Your task to perform on an android device: turn on showing notifications on the lock screen Image 0: 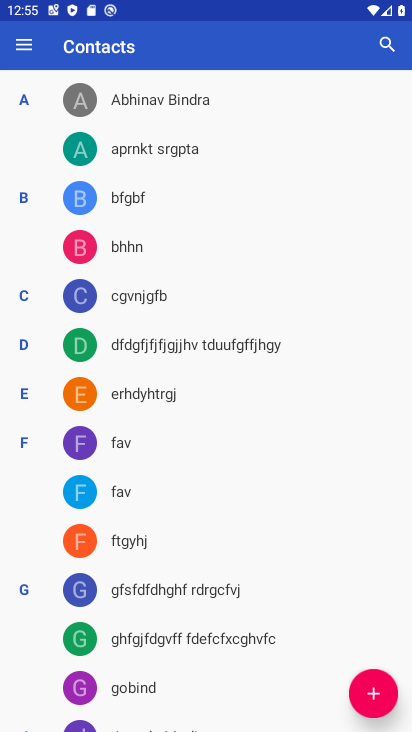
Step 0: press home button
Your task to perform on an android device: turn on showing notifications on the lock screen Image 1: 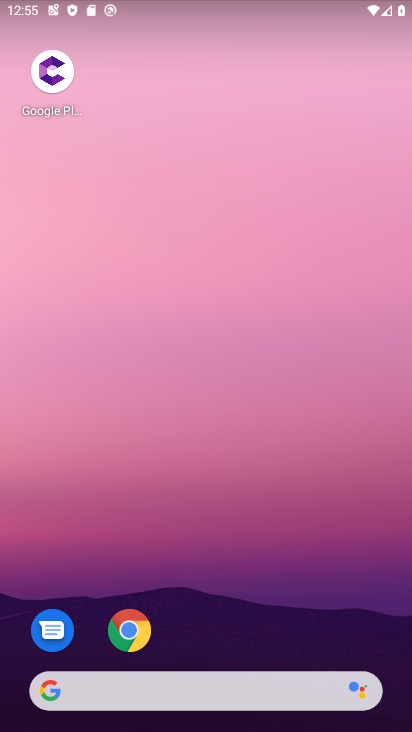
Step 1: drag from (148, 676) to (193, 398)
Your task to perform on an android device: turn on showing notifications on the lock screen Image 2: 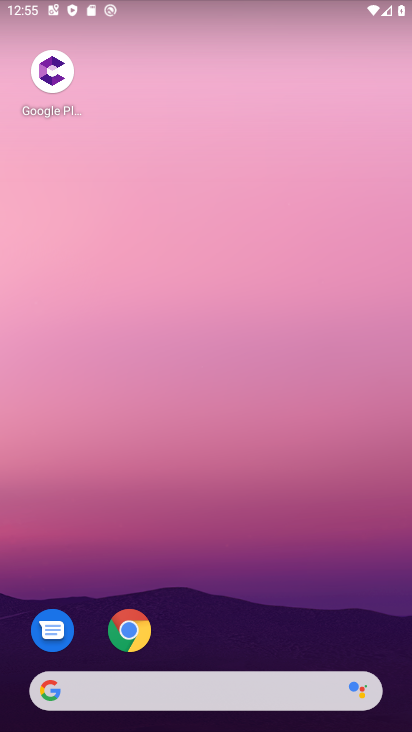
Step 2: drag from (150, 663) to (208, 177)
Your task to perform on an android device: turn on showing notifications on the lock screen Image 3: 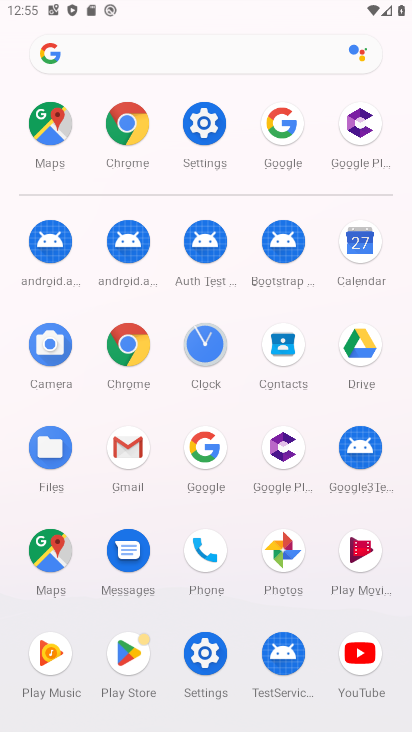
Step 3: click (208, 139)
Your task to perform on an android device: turn on showing notifications on the lock screen Image 4: 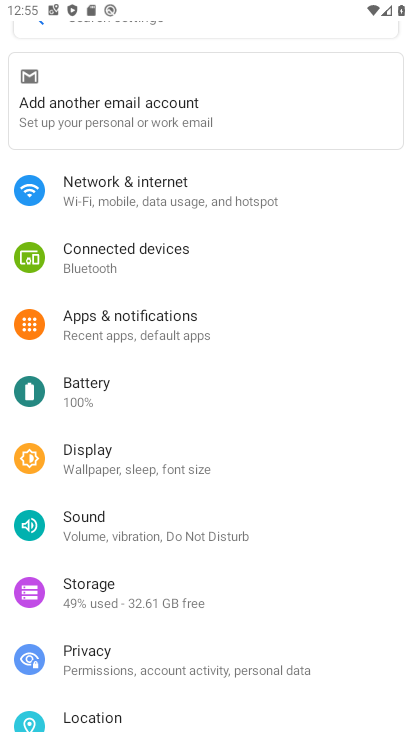
Step 4: click (88, 649)
Your task to perform on an android device: turn on showing notifications on the lock screen Image 5: 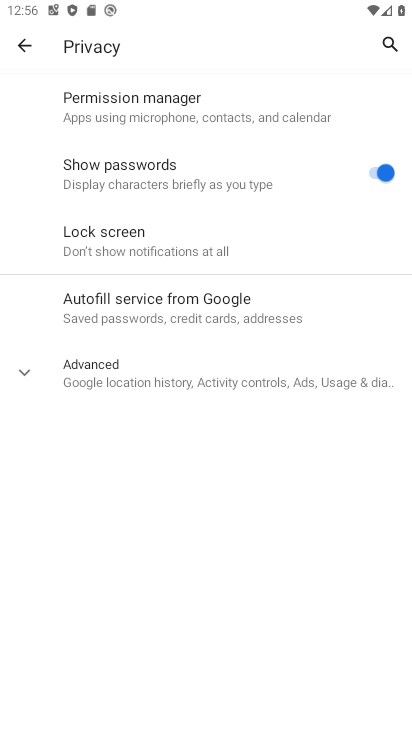
Step 5: click (133, 225)
Your task to perform on an android device: turn on showing notifications on the lock screen Image 6: 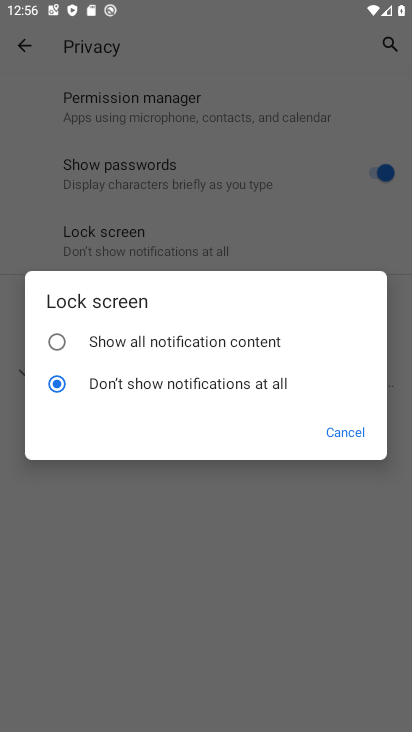
Step 6: click (119, 346)
Your task to perform on an android device: turn on showing notifications on the lock screen Image 7: 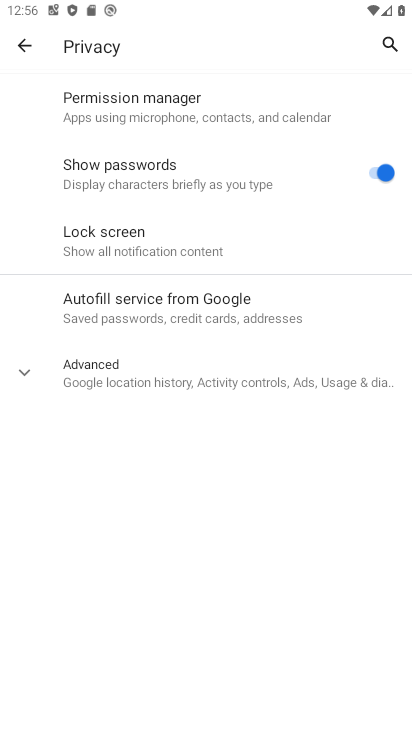
Step 7: task complete